Your task to perform on an android device: Go to notification settings Image 0: 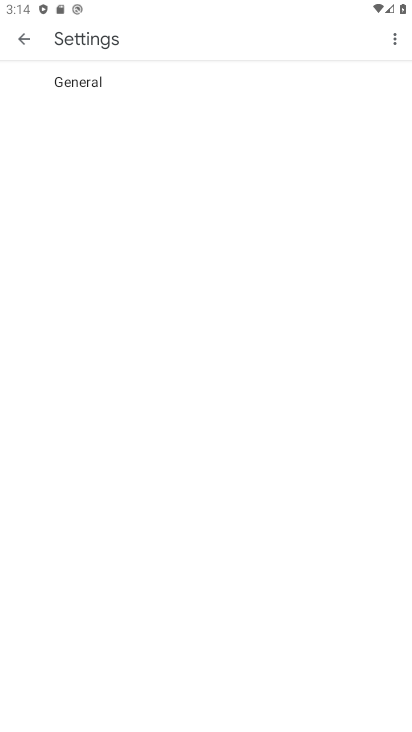
Step 0: press home button
Your task to perform on an android device: Go to notification settings Image 1: 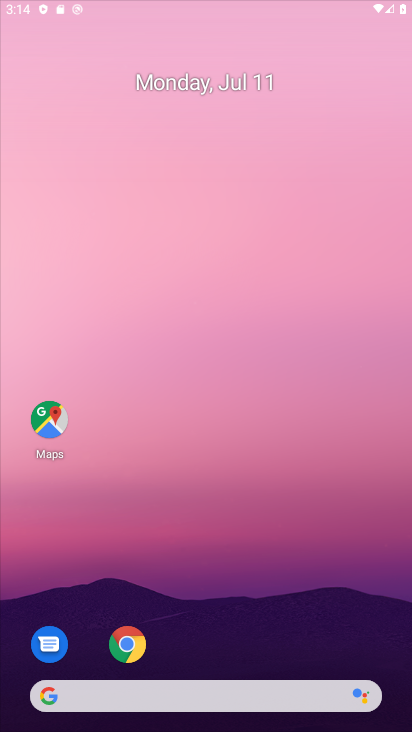
Step 1: drag from (223, 694) to (223, 236)
Your task to perform on an android device: Go to notification settings Image 2: 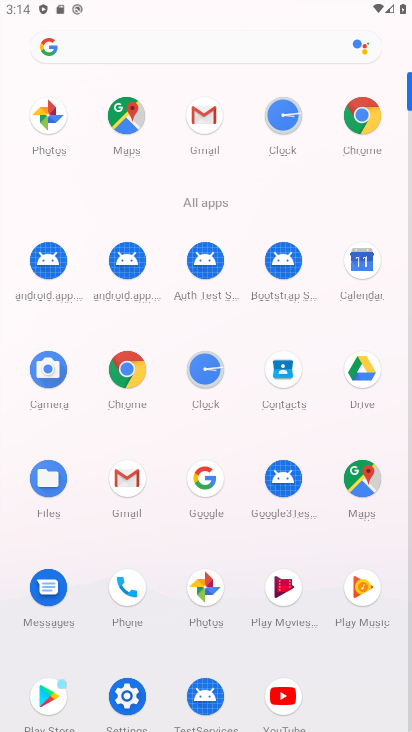
Step 2: click (131, 680)
Your task to perform on an android device: Go to notification settings Image 3: 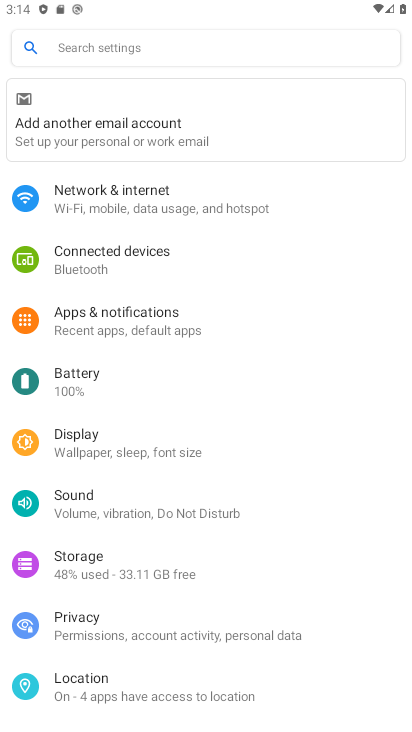
Step 3: click (155, 310)
Your task to perform on an android device: Go to notification settings Image 4: 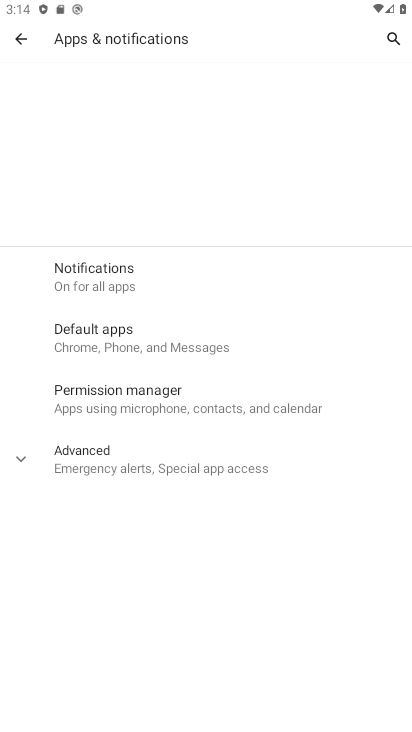
Step 4: click (118, 269)
Your task to perform on an android device: Go to notification settings Image 5: 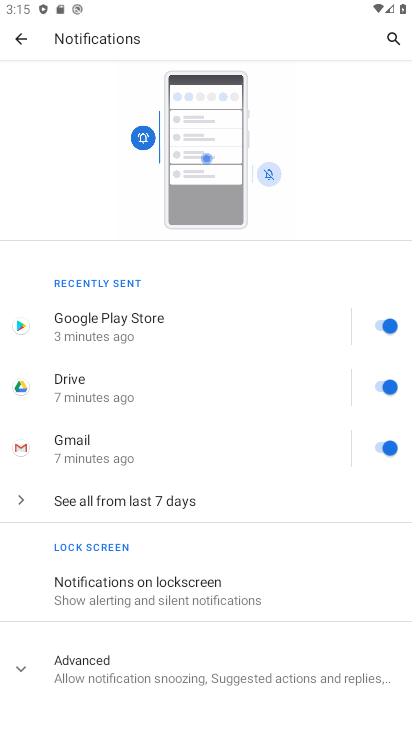
Step 5: task complete